Your task to perform on an android device: set default search engine in the chrome app Image 0: 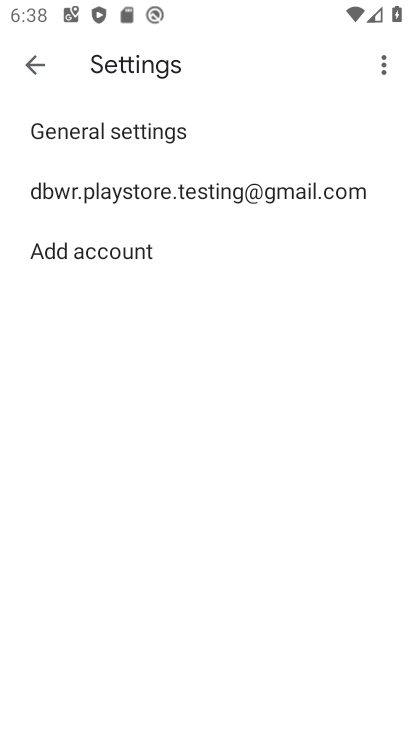
Step 0: press back button
Your task to perform on an android device: set default search engine in the chrome app Image 1: 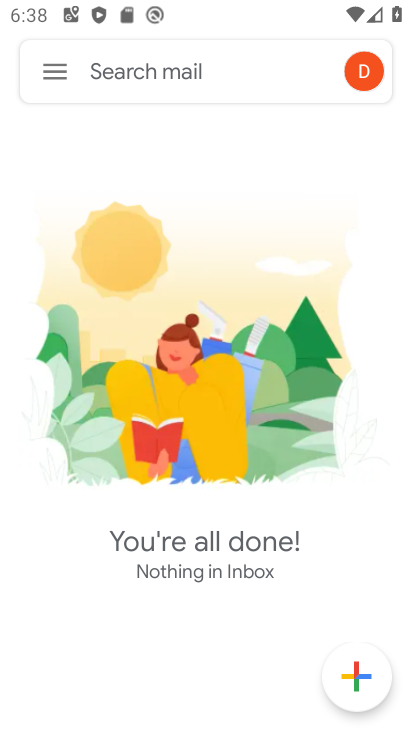
Step 1: press home button
Your task to perform on an android device: set default search engine in the chrome app Image 2: 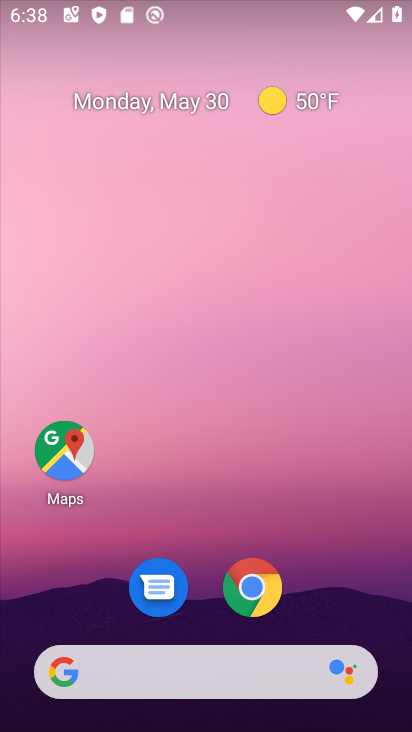
Step 2: drag from (322, 607) to (258, 36)
Your task to perform on an android device: set default search engine in the chrome app Image 3: 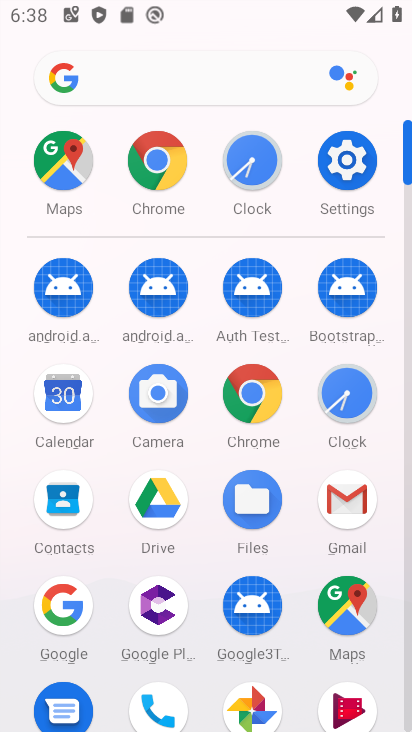
Step 3: click (248, 392)
Your task to perform on an android device: set default search engine in the chrome app Image 4: 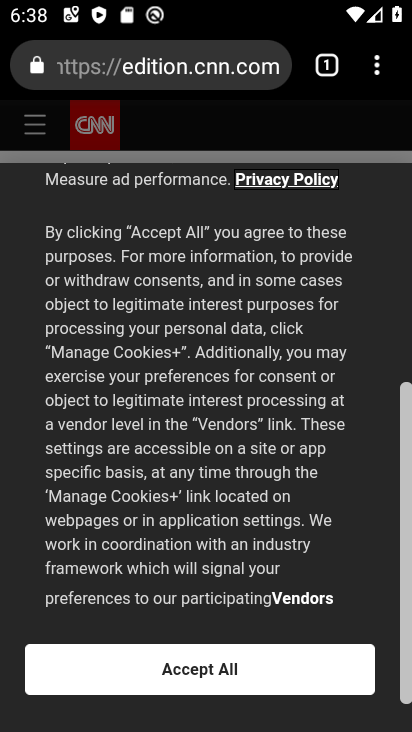
Step 4: task complete